Your task to perform on an android device: open chrome and create a bookmark for the current page Image 0: 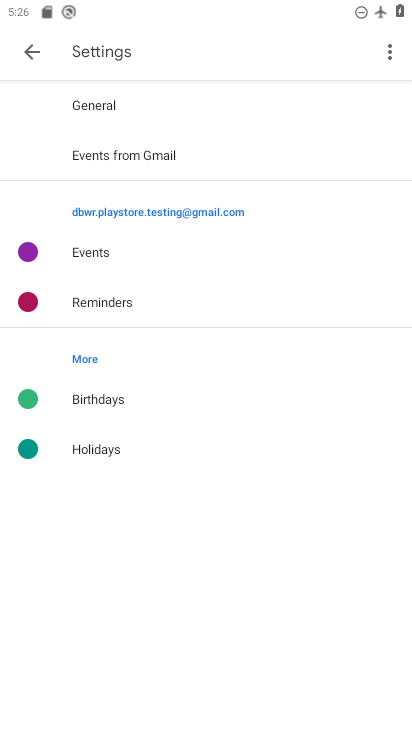
Step 0: press home button
Your task to perform on an android device: open chrome and create a bookmark for the current page Image 1: 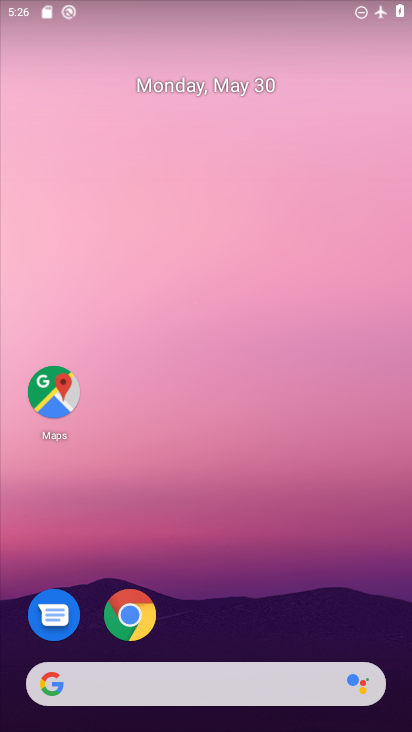
Step 1: click (130, 626)
Your task to perform on an android device: open chrome and create a bookmark for the current page Image 2: 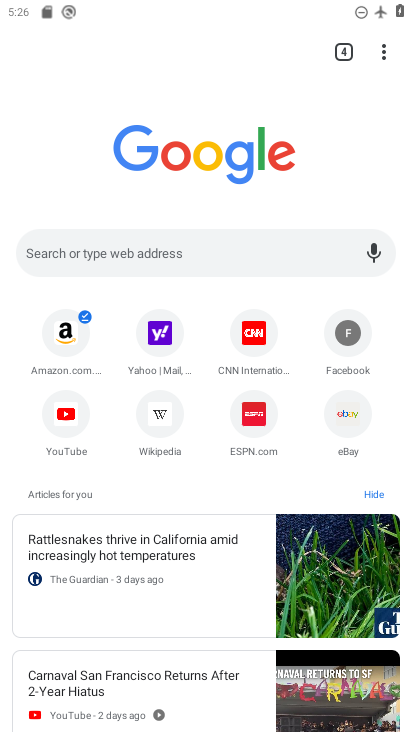
Step 2: click (397, 51)
Your task to perform on an android device: open chrome and create a bookmark for the current page Image 3: 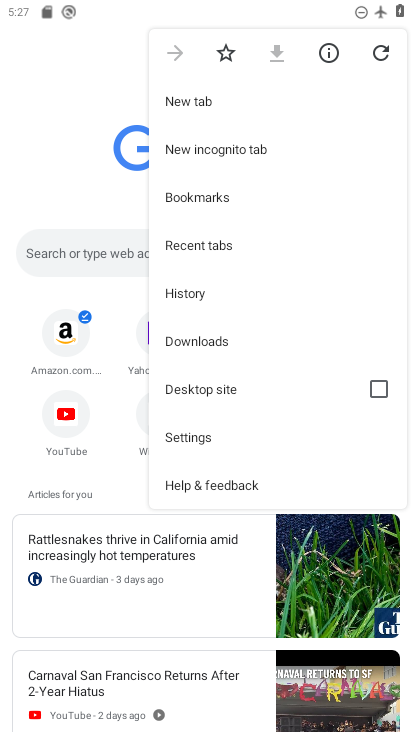
Step 3: click (227, 55)
Your task to perform on an android device: open chrome and create a bookmark for the current page Image 4: 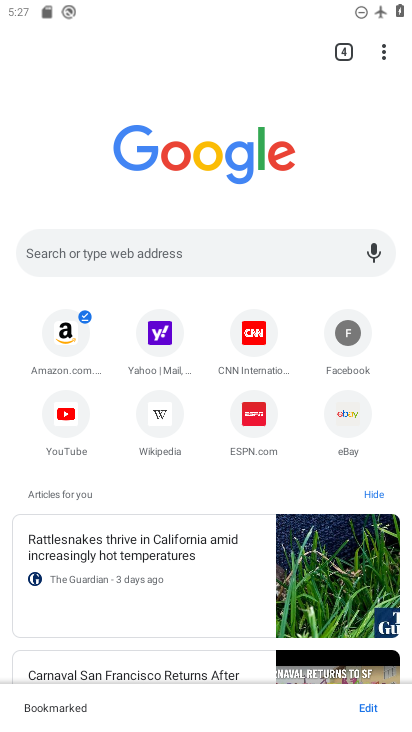
Step 4: task complete